Your task to perform on an android device: turn vacation reply on in the gmail app Image 0: 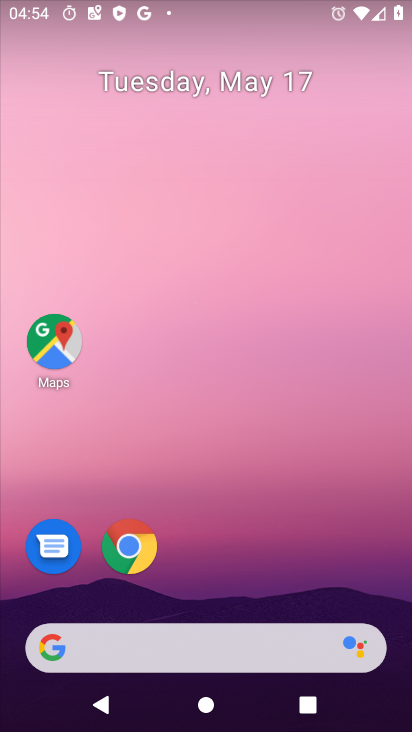
Step 0: drag from (396, 632) to (354, 428)
Your task to perform on an android device: turn vacation reply on in the gmail app Image 1: 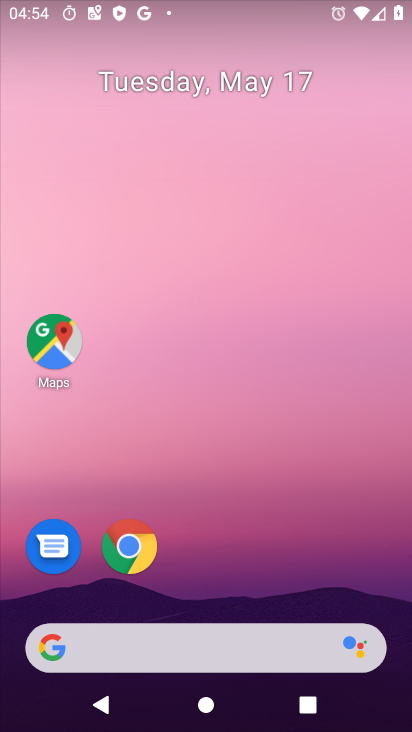
Step 1: drag from (398, 560) to (397, 438)
Your task to perform on an android device: turn vacation reply on in the gmail app Image 2: 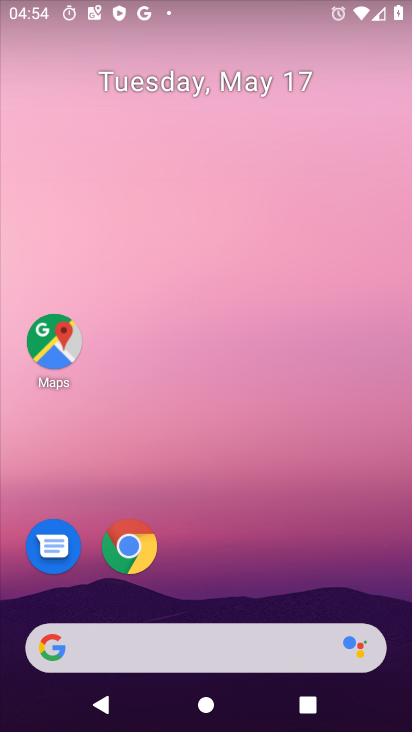
Step 2: drag from (387, 640) to (353, 328)
Your task to perform on an android device: turn vacation reply on in the gmail app Image 3: 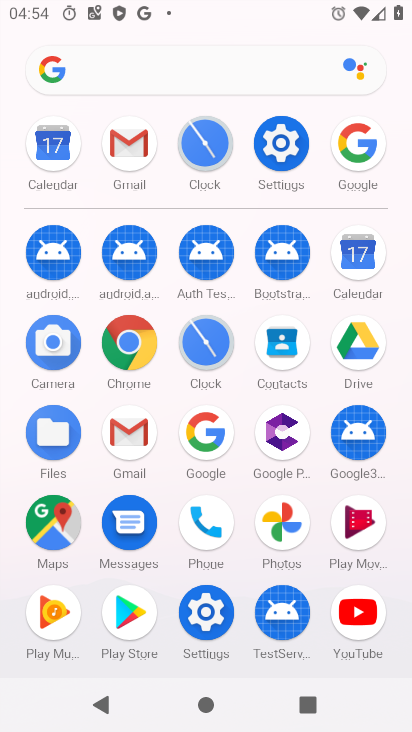
Step 3: click (138, 144)
Your task to perform on an android device: turn vacation reply on in the gmail app Image 4: 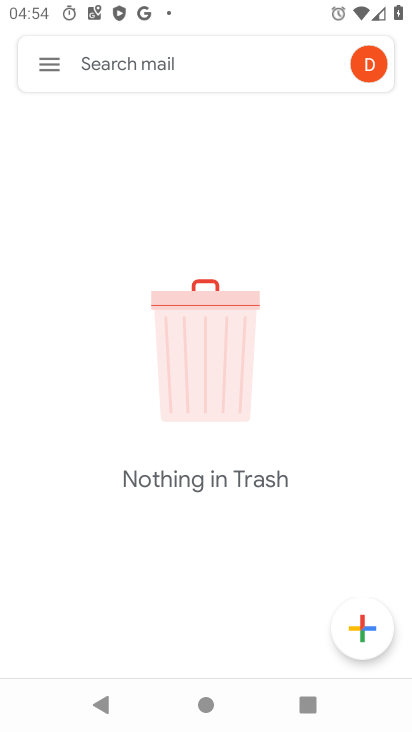
Step 4: click (49, 58)
Your task to perform on an android device: turn vacation reply on in the gmail app Image 5: 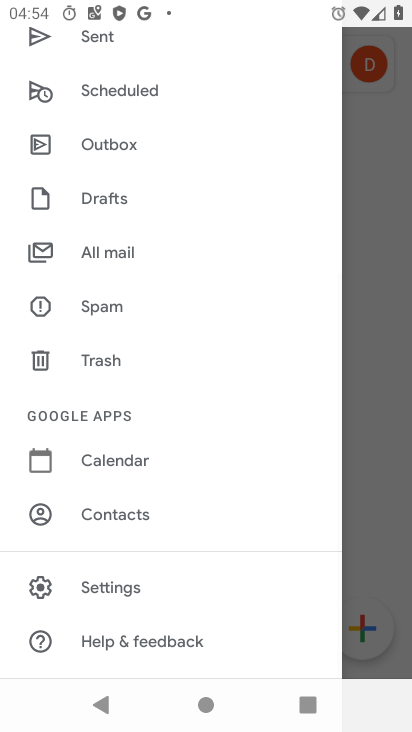
Step 5: drag from (248, 562) to (276, 347)
Your task to perform on an android device: turn vacation reply on in the gmail app Image 6: 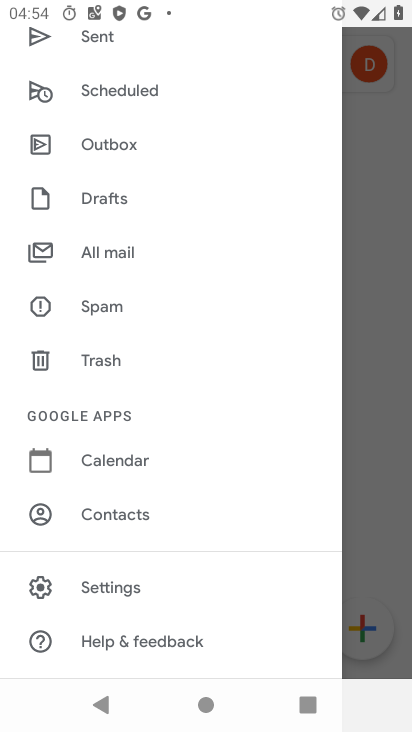
Step 6: click (106, 595)
Your task to perform on an android device: turn vacation reply on in the gmail app Image 7: 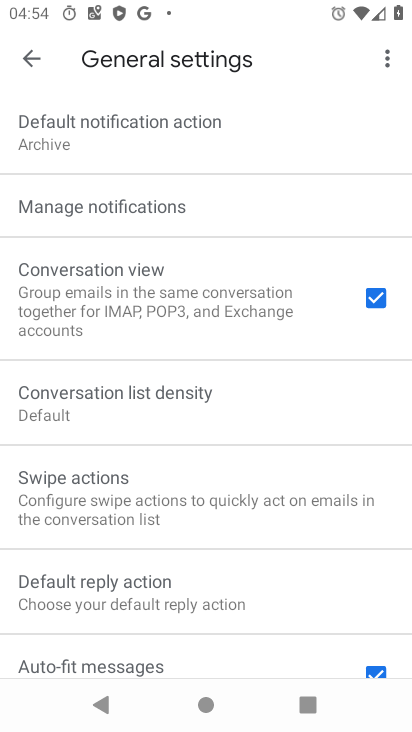
Step 7: drag from (227, 654) to (256, 386)
Your task to perform on an android device: turn vacation reply on in the gmail app Image 8: 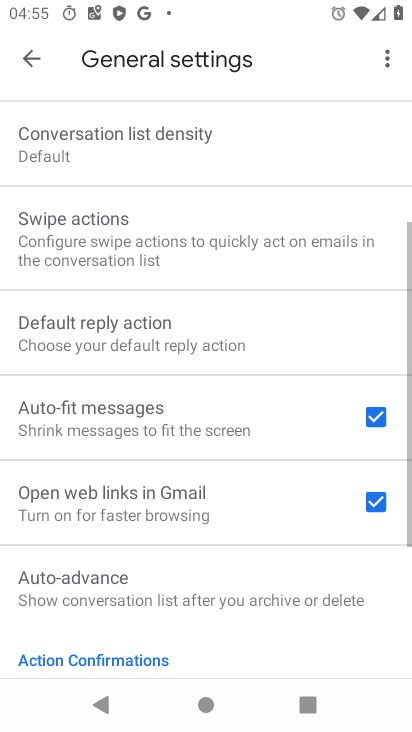
Step 8: drag from (206, 601) to (238, 353)
Your task to perform on an android device: turn vacation reply on in the gmail app Image 9: 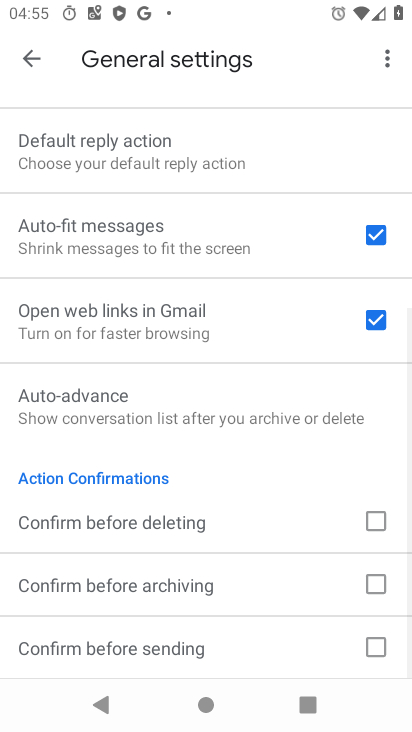
Step 9: drag from (211, 596) to (250, 384)
Your task to perform on an android device: turn vacation reply on in the gmail app Image 10: 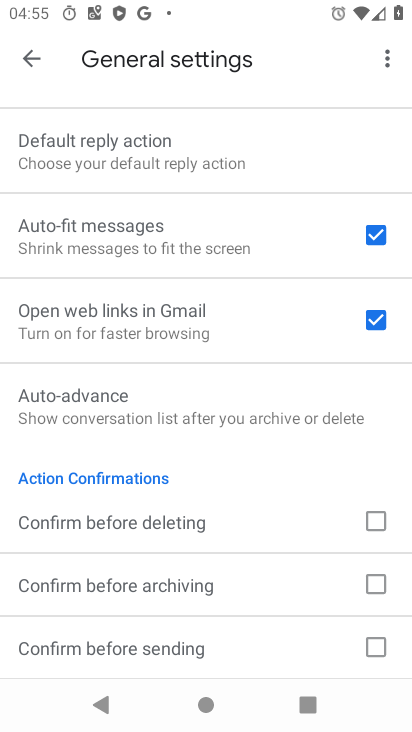
Step 10: drag from (239, 622) to (252, 407)
Your task to perform on an android device: turn vacation reply on in the gmail app Image 11: 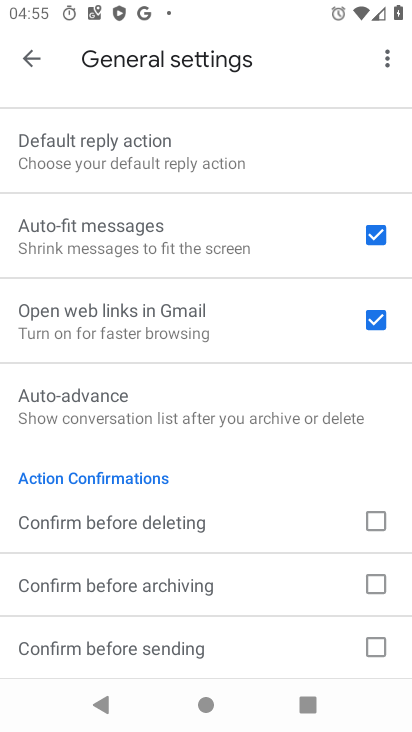
Step 11: drag from (217, 496) to (204, 528)
Your task to perform on an android device: turn vacation reply on in the gmail app Image 12: 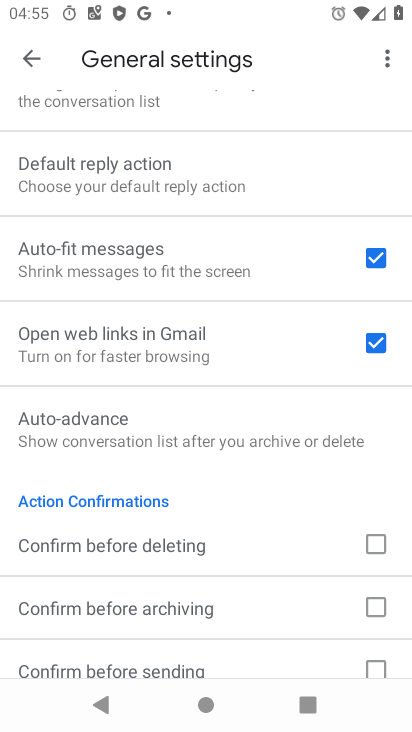
Step 12: click (38, 50)
Your task to perform on an android device: turn vacation reply on in the gmail app Image 13: 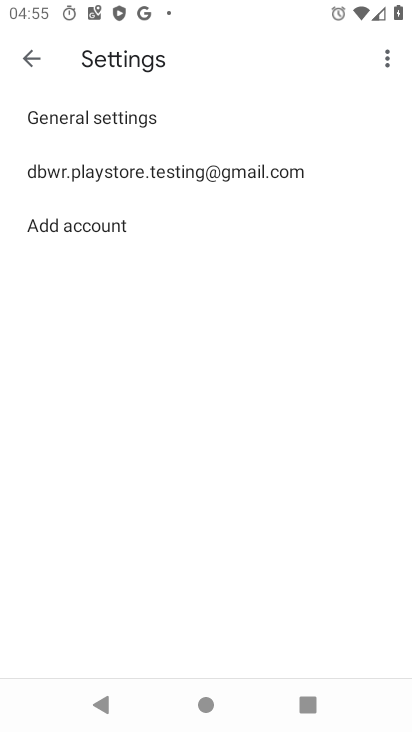
Step 13: click (69, 175)
Your task to perform on an android device: turn vacation reply on in the gmail app Image 14: 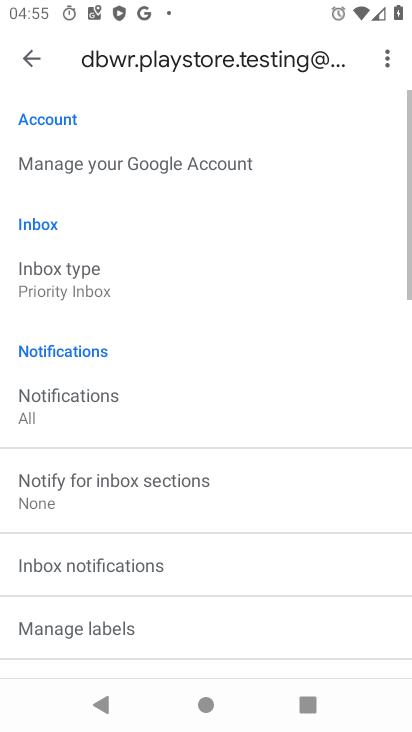
Step 14: drag from (306, 608) to (338, 340)
Your task to perform on an android device: turn vacation reply on in the gmail app Image 15: 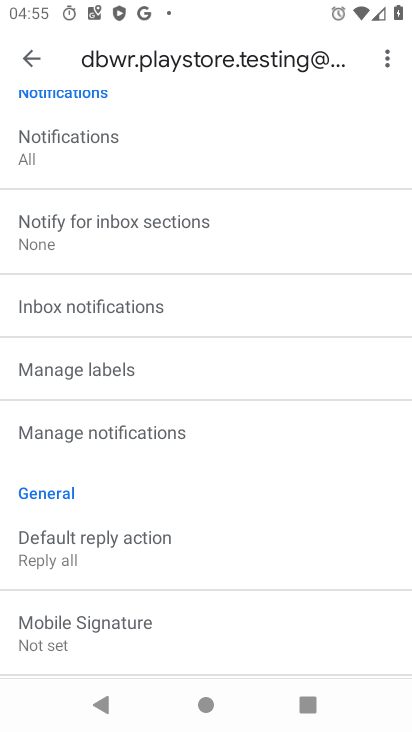
Step 15: drag from (282, 614) to (314, 393)
Your task to perform on an android device: turn vacation reply on in the gmail app Image 16: 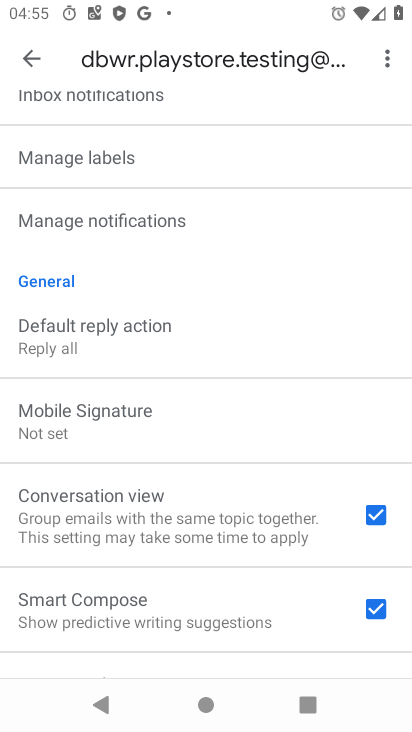
Step 16: drag from (241, 562) to (259, 385)
Your task to perform on an android device: turn vacation reply on in the gmail app Image 17: 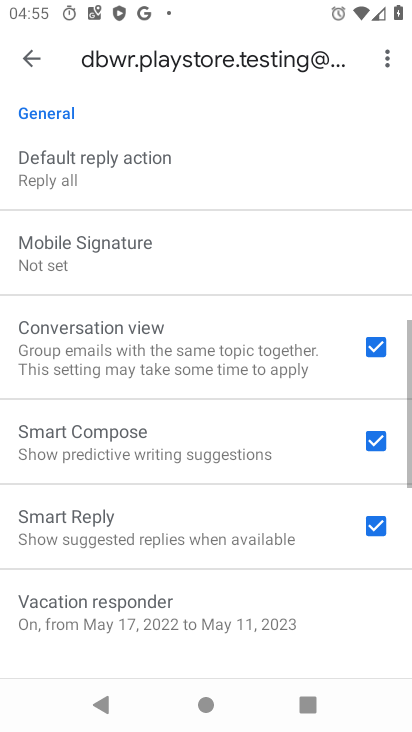
Step 17: drag from (216, 564) to (224, 436)
Your task to perform on an android device: turn vacation reply on in the gmail app Image 18: 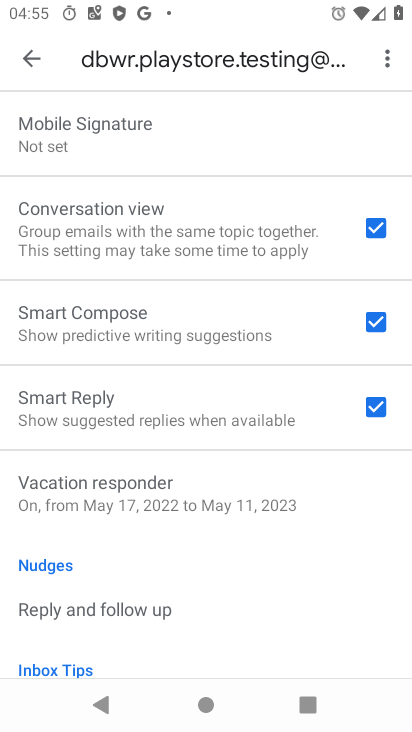
Step 18: click (150, 495)
Your task to perform on an android device: turn vacation reply on in the gmail app Image 19: 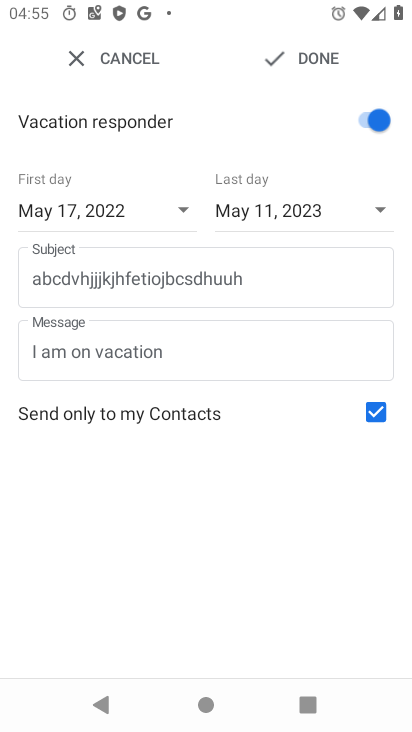
Step 19: task complete